Your task to perform on an android device: turn off notifications in google photos Image 0: 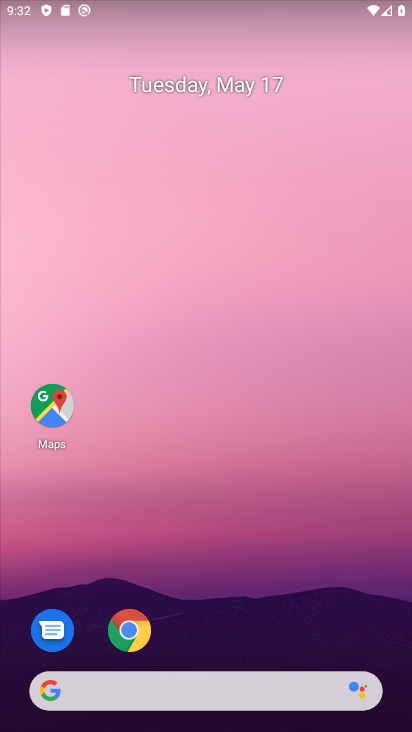
Step 0: drag from (272, 640) to (223, 180)
Your task to perform on an android device: turn off notifications in google photos Image 1: 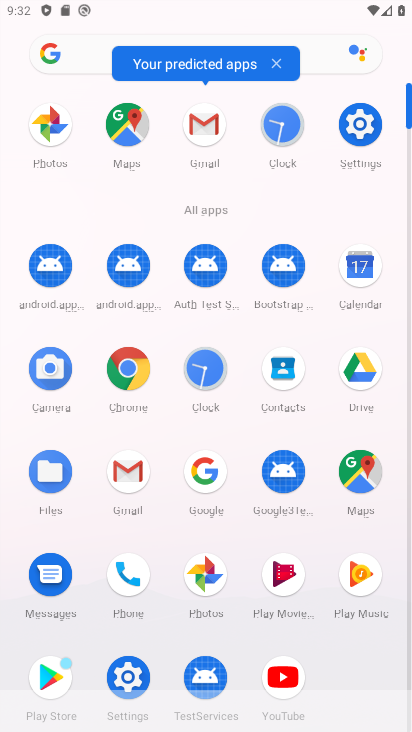
Step 1: click (53, 124)
Your task to perform on an android device: turn off notifications in google photos Image 2: 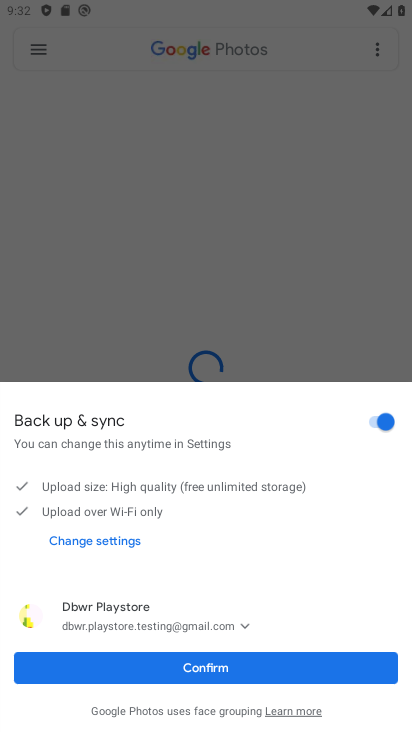
Step 2: click (257, 672)
Your task to perform on an android device: turn off notifications in google photos Image 3: 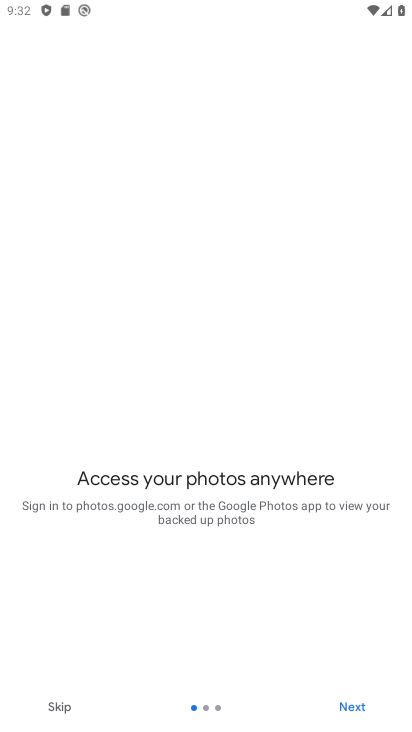
Step 3: click (56, 703)
Your task to perform on an android device: turn off notifications in google photos Image 4: 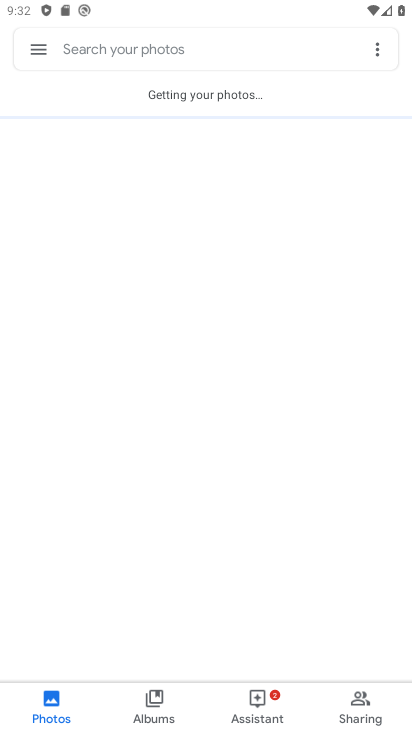
Step 4: click (30, 49)
Your task to perform on an android device: turn off notifications in google photos Image 5: 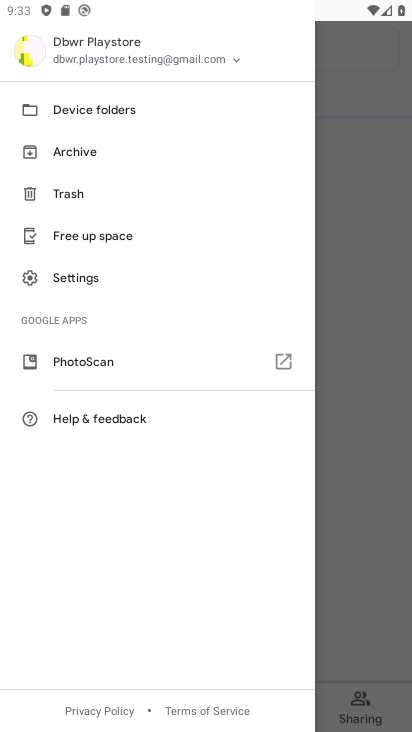
Step 5: click (97, 278)
Your task to perform on an android device: turn off notifications in google photos Image 6: 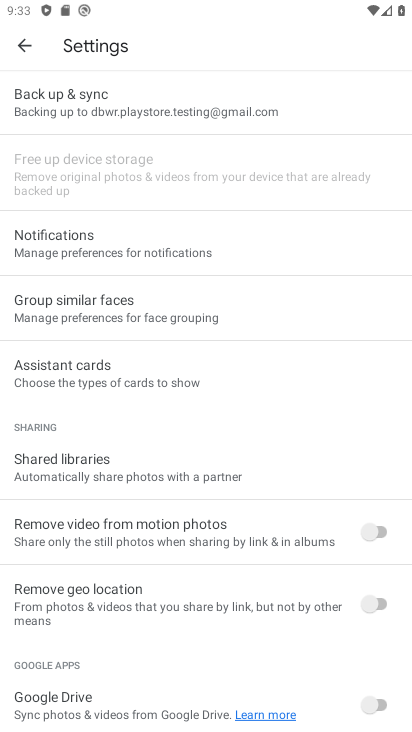
Step 6: click (124, 264)
Your task to perform on an android device: turn off notifications in google photos Image 7: 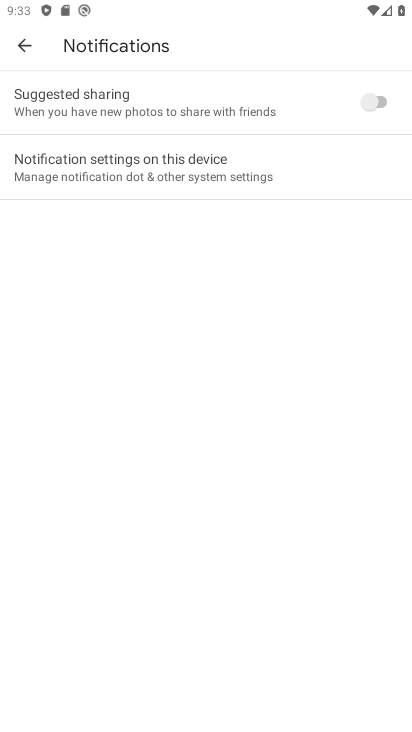
Step 7: click (156, 185)
Your task to perform on an android device: turn off notifications in google photos Image 8: 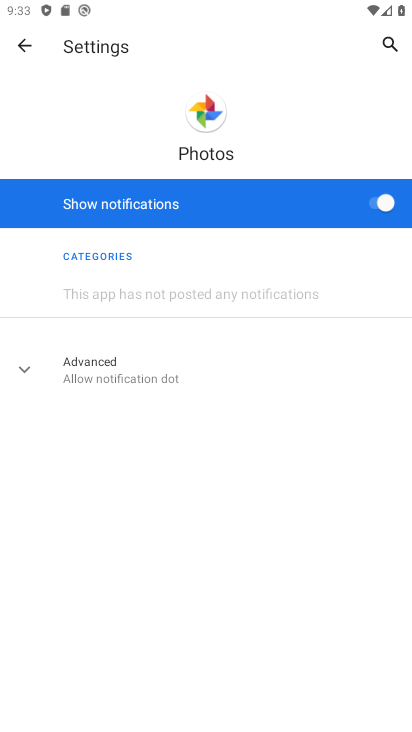
Step 8: click (387, 203)
Your task to perform on an android device: turn off notifications in google photos Image 9: 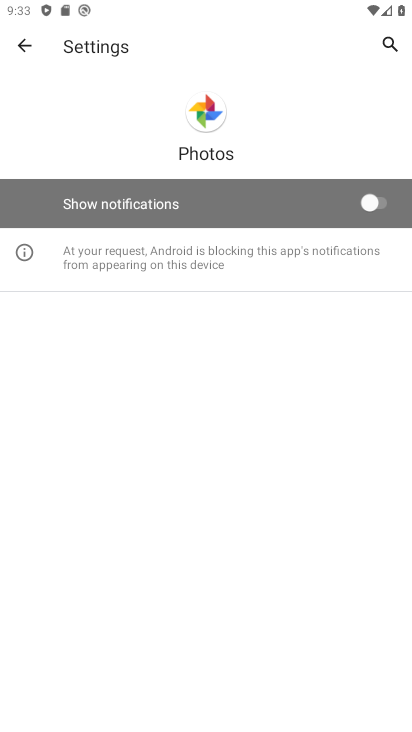
Step 9: task complete